Your task to perform on an android device: Go to Maps Image 0: 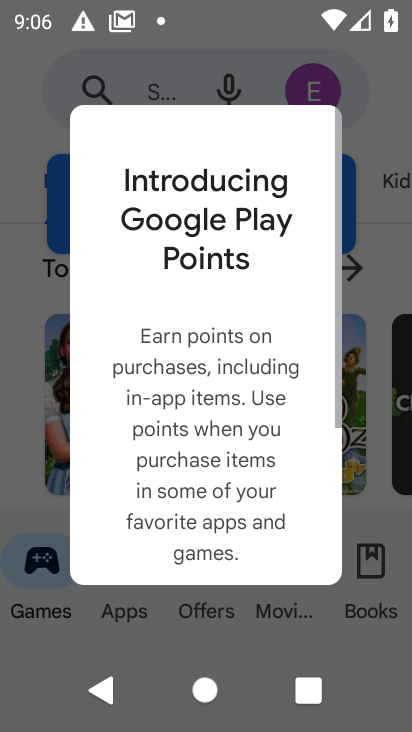
Step 0: press home button
Your task to perform on an android device: Go to Maps Image 1: 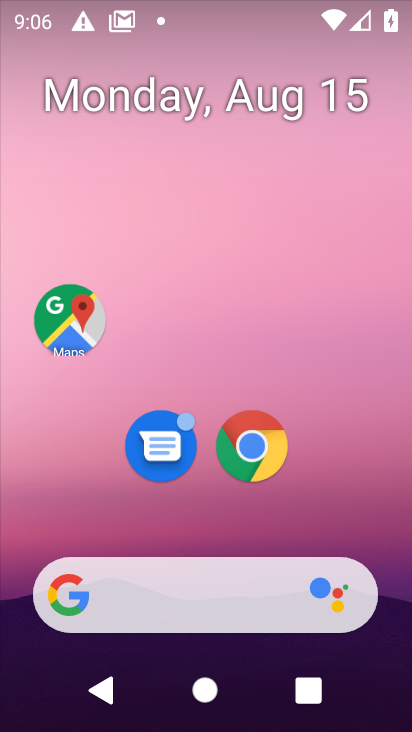
Step 1: click (78, 330)
Your task to perform on an android device: Go to Maps Image 2: 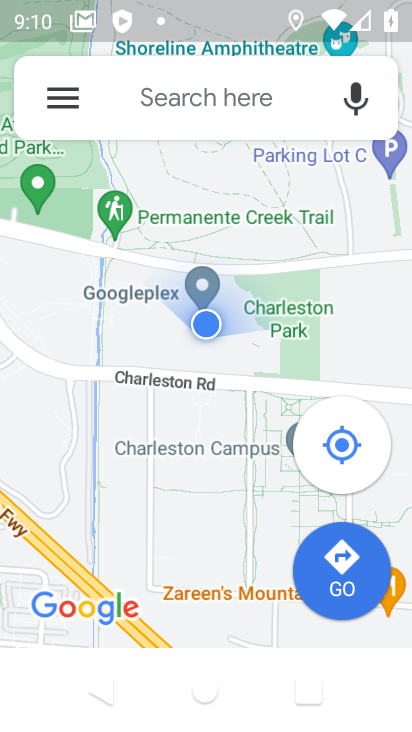
Step 2: task complete